Your task to perform on an android device: Go to sound settings Image 0: 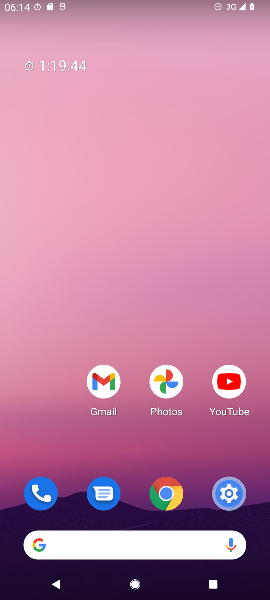
Step 0: press home button
Your task to perform on an android device: Go to sound settings Image 1: 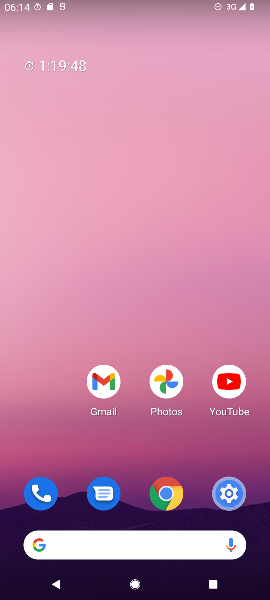
Step 1: drag from (60, 450) to (50, 117)
Your task to perform on an android device: Go to sound settings Image 2: 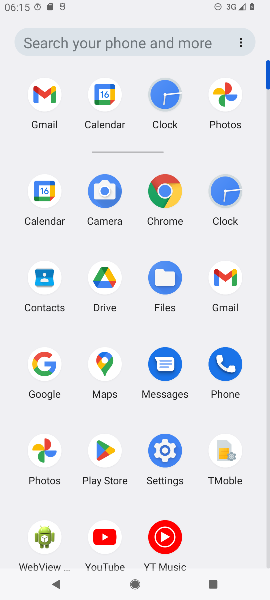
Step 2: click (165, 454)
Your task to perform on an android device: Go to sound settings Image 3: 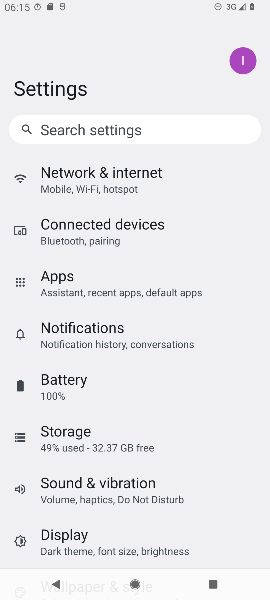
Step 3: drag from (201, 497) to (209, 388)
Your task to perform on an android device: Go to sound settings Image 4: 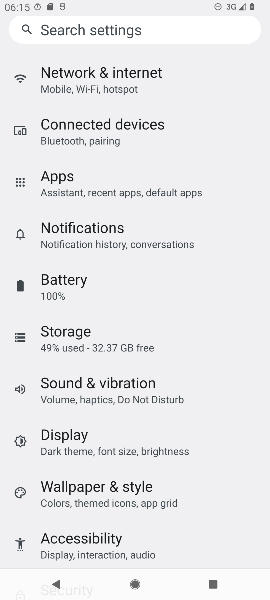
Step 4: drag from (226, 507) to (214, 373)
Your task to perform on an android device: Go to sound settings Image 5: 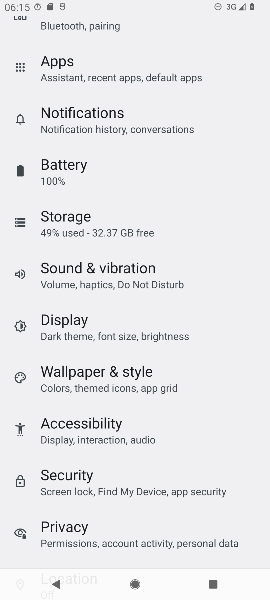
Step 5: drag from (243, 196) to (238, 278)
Your task to perform on an android device: Go to sound settings Image 6: 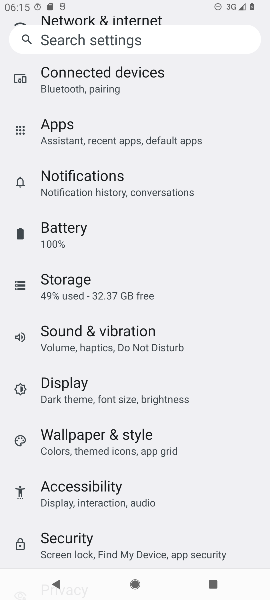
Step 6: drag from (219, 248) to (223, 293)
Your task to perform on an android device: Go to sound settings Image 7: 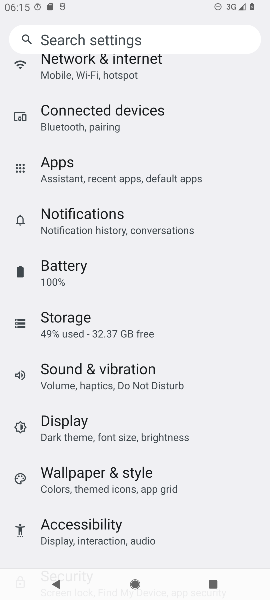
Step 7: drag from (233, 261) to (231, 362)
Your task to perform on an android device: Go to sound settings Image 8: 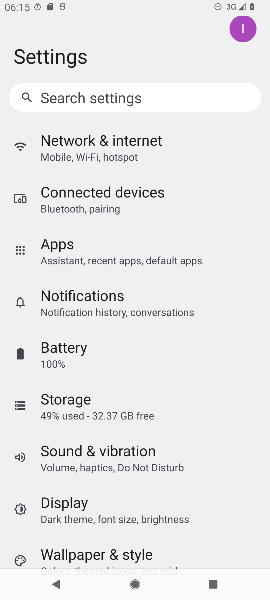
Step 8: click (175, 462)
Your task to perform on an android device: Go to sound settings Image 9: 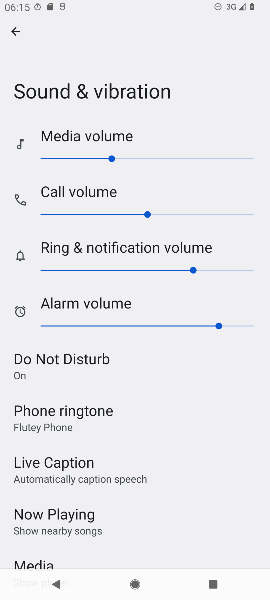
Step 9: task complete